Your task to perform on an android device: star an email in the gmail app Image 0: 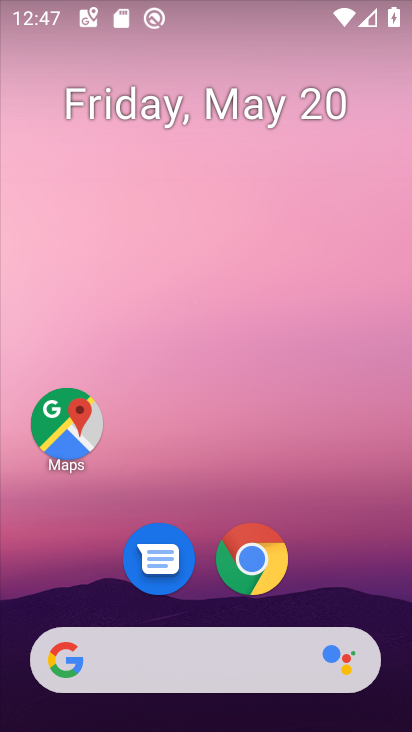
Step 0: drag from (329, 562) to (312, 115)
Your task to perform on an android device: star an email in the gmail app Image 1: 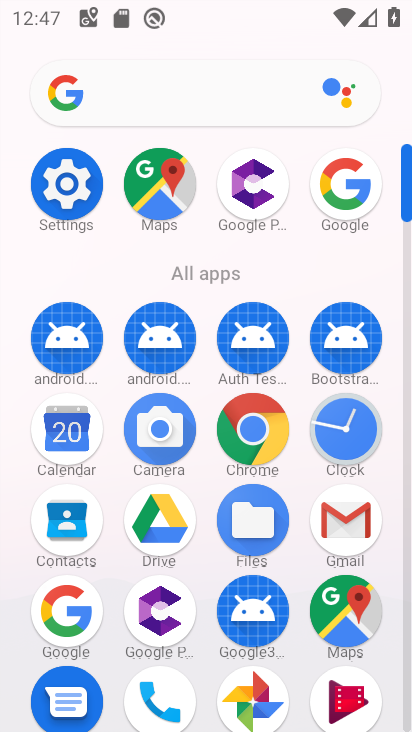
Step 1: click (366, 523)
Your task to perform on an android device: star an email in the gmail app Image 2: 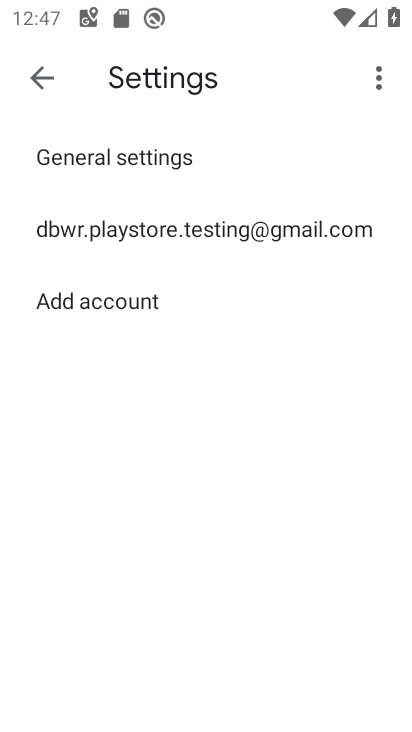
Step 2: click (191, 237)
Your task to perform on an android device: star an email in the gmail app Image 3: 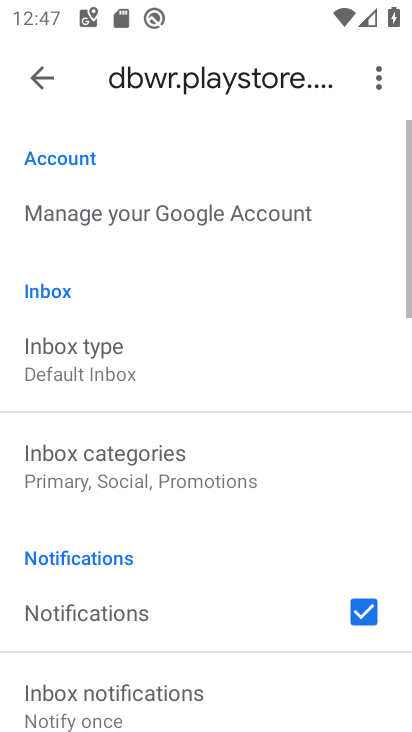
Step 3: press back button
Your task to perform on an android device: star an email in the gmail app Image 4: 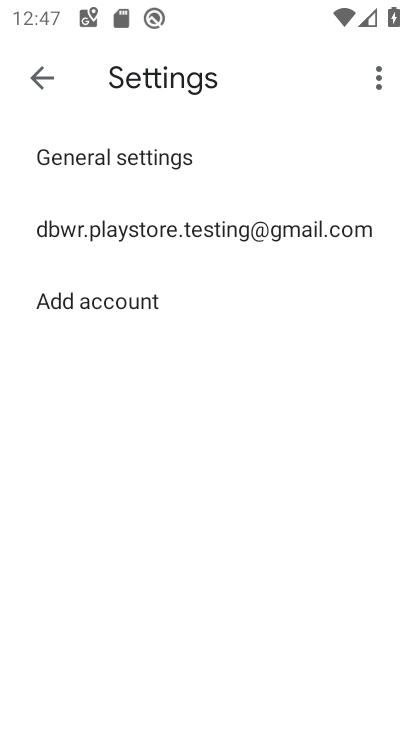
Step 4: press back button
Your task to perform on an android device: star an email in the gmail app Image 5: 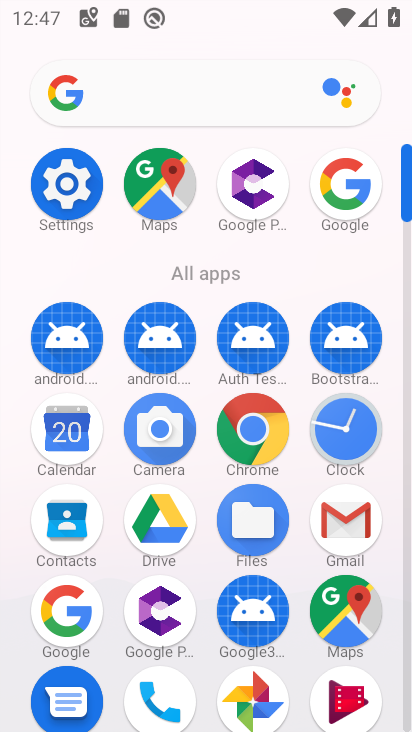
Step 5: click (354, 505)
Your task to perform on an android device: star an email in the gmail app Image 6: 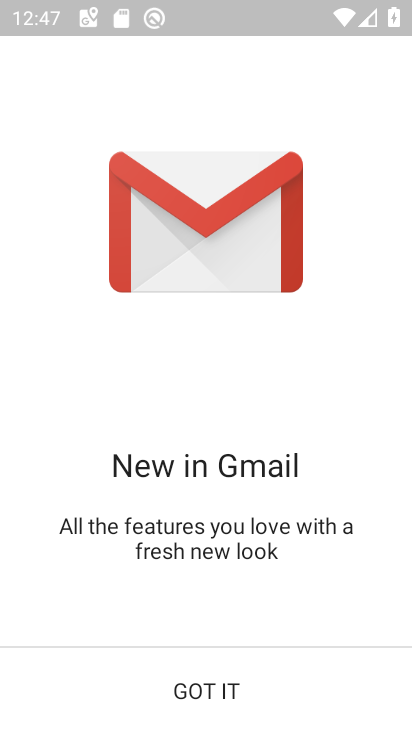
Step 6: click (228, 665)
Your task to perform on an android device: star an email in the gmail app Image 7: 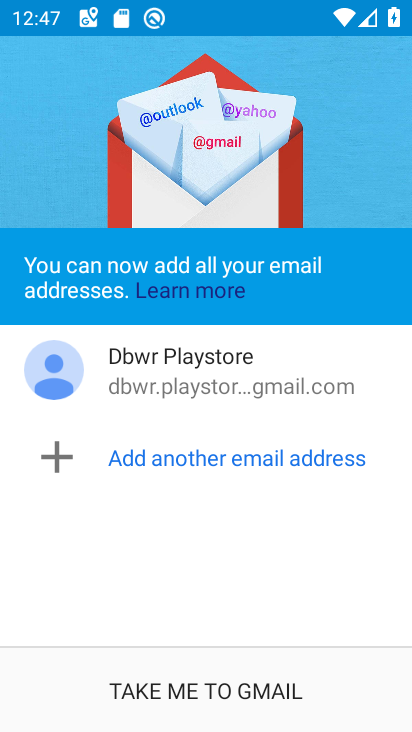
Step 7: click (223, 692)
Your task to perform on an android device: star an email in the gmail app Image 8: 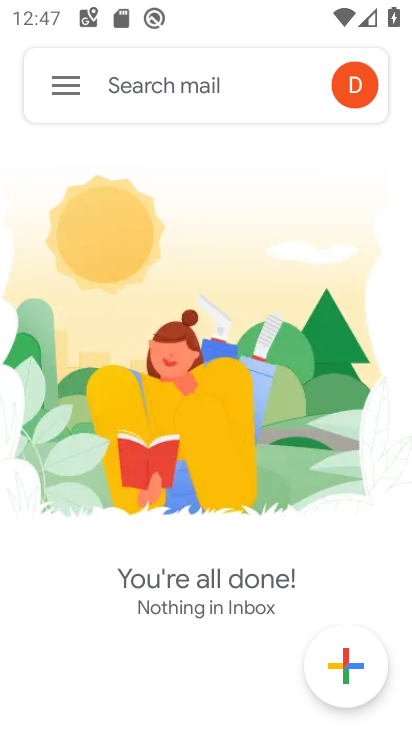
Step 8: click (73, 74)
Your task to perform on an android device: star an email in the gmail app Image 9: 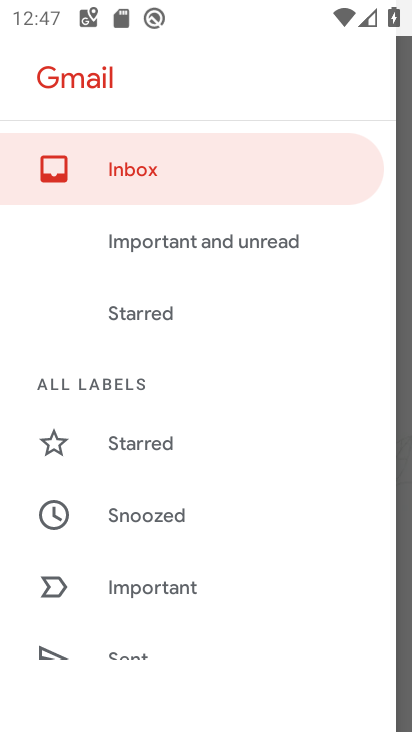
Step 9: click (404, 269)
Your task to perform on an android device: star an email in the gmail app Image 10: 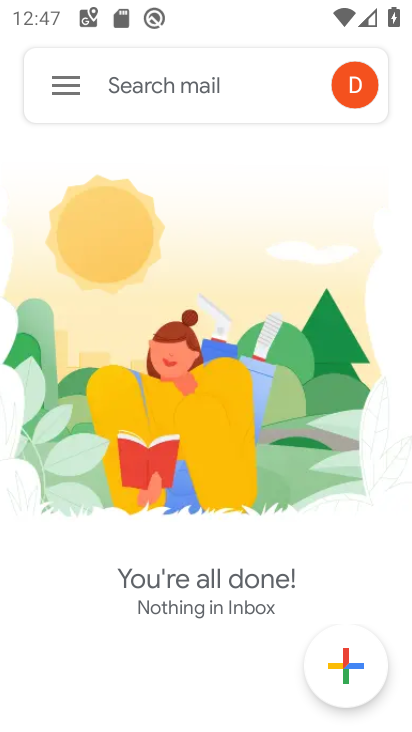
Step 10: task complete